Your task to perform on an android device: add a contact in the contacts app Image 0: 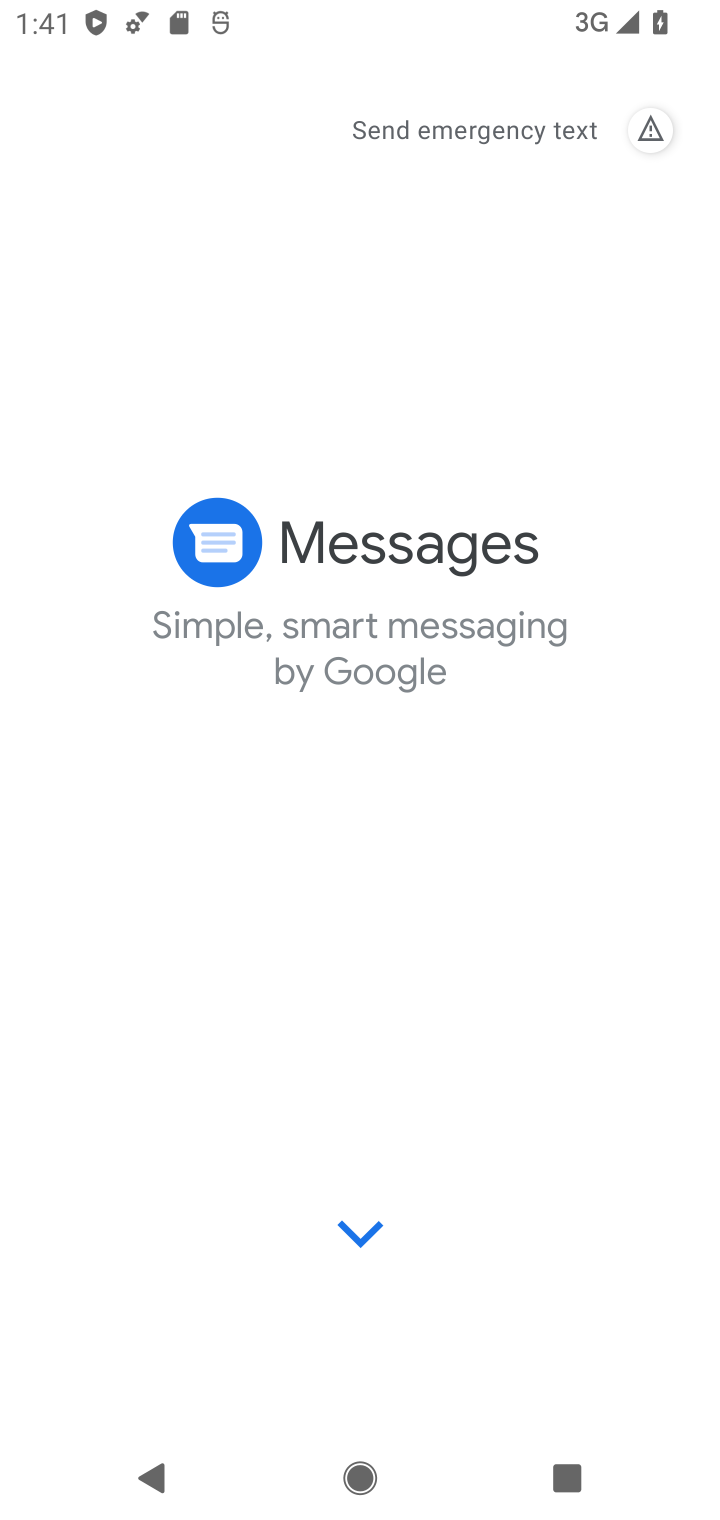
Step 0: press home button
Your task to perform on an android device: add a contact in the contacts app Image 1: 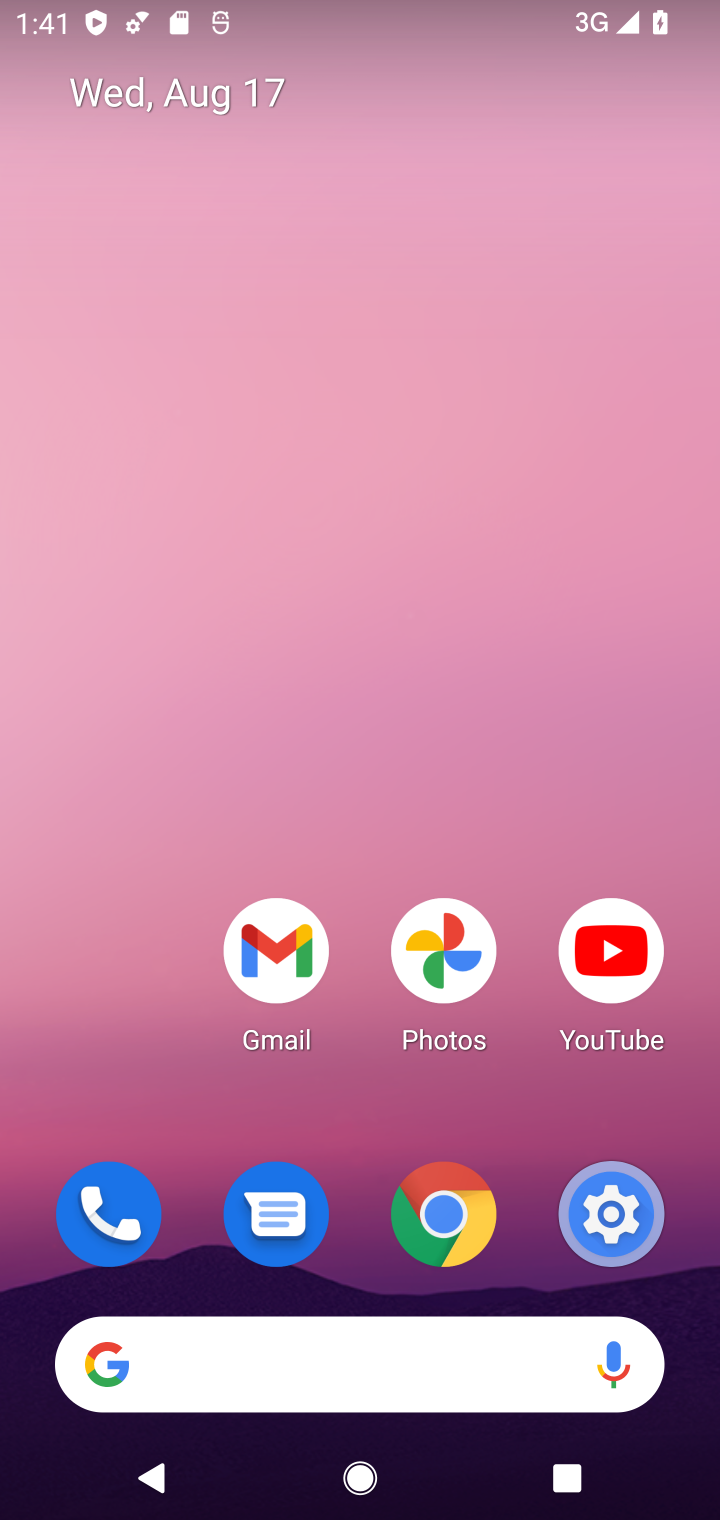
Step 1: drag from (359, 1259) to (289, 215)
Your task to perform on an android device: add a contact in the contacts app Image 2: 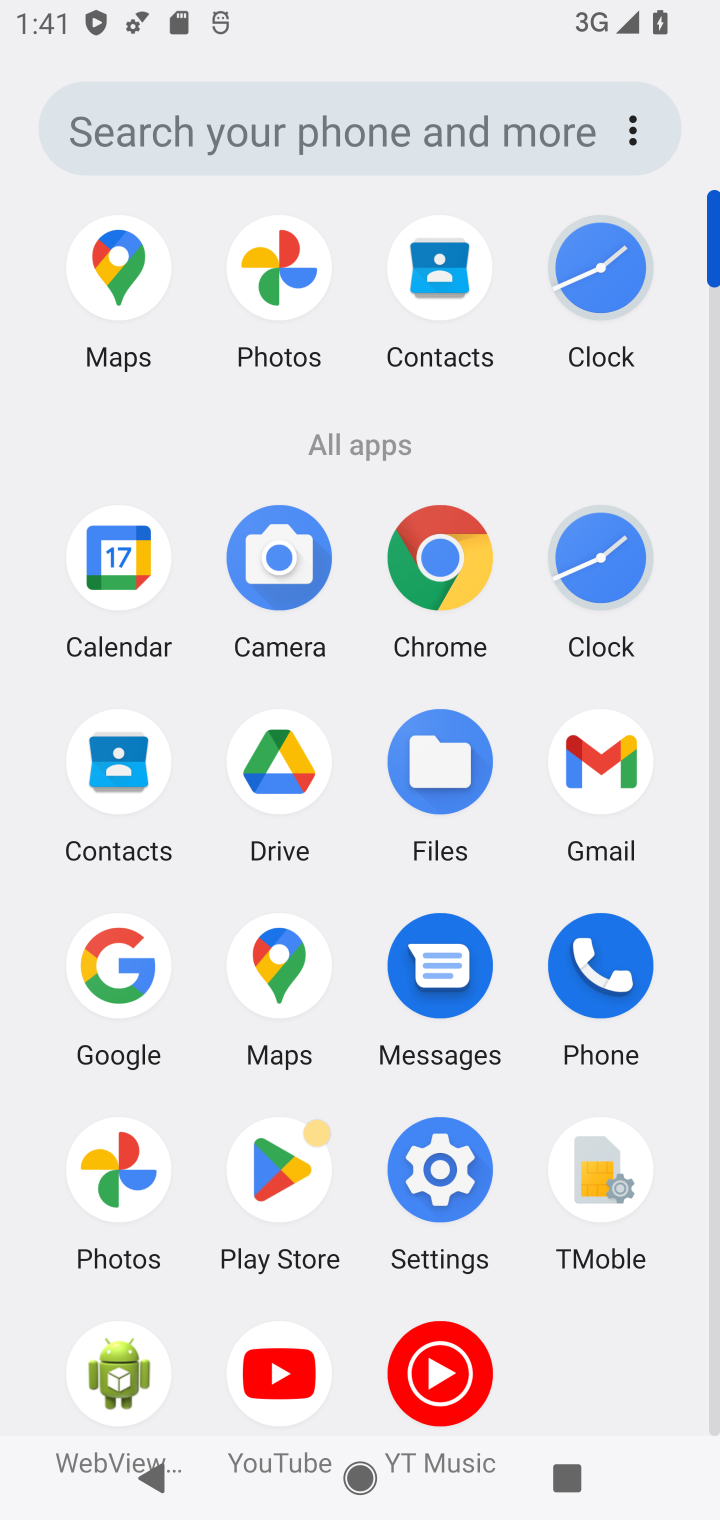
Step 2: click (121, 749)
Your task to perform on an android device: add a contact in the contacts app Image 3: 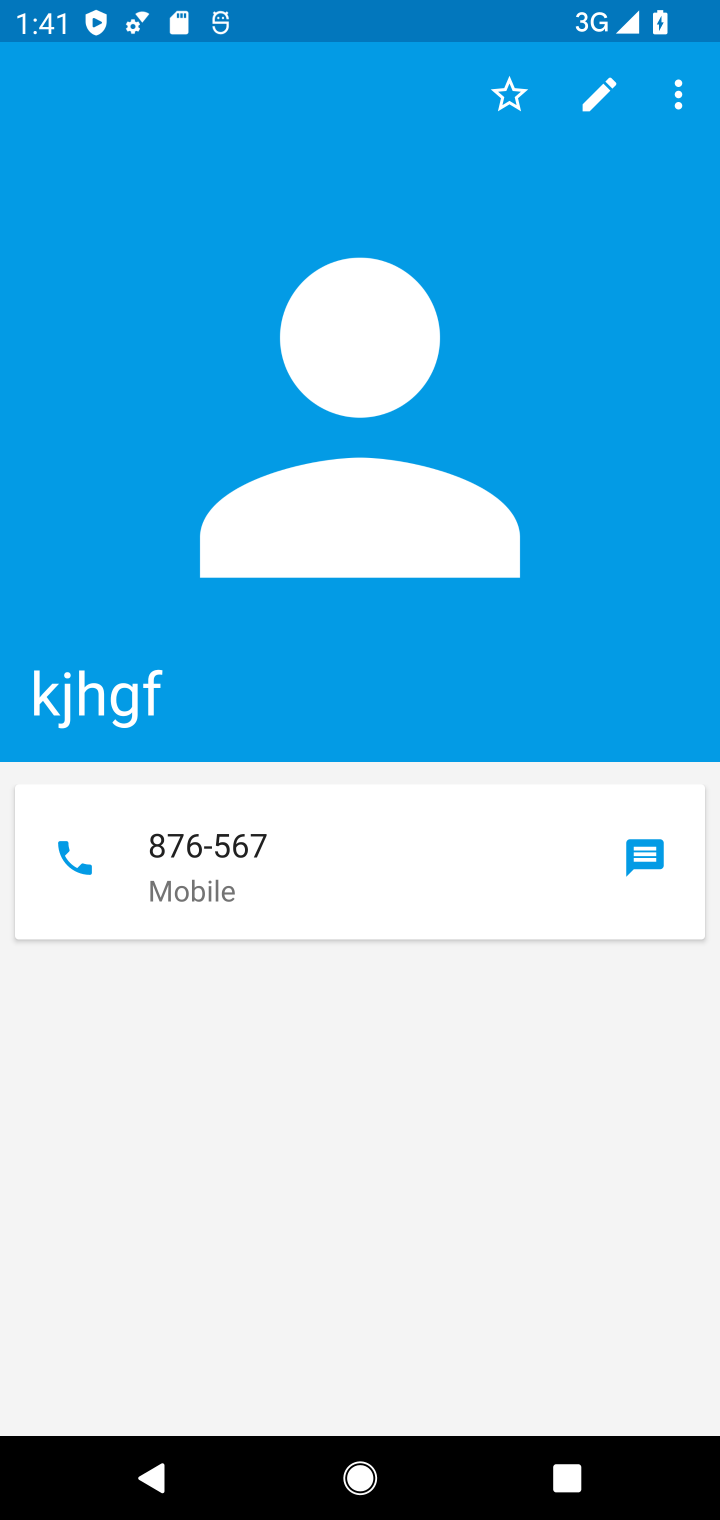
Step 3: press back button
Your task to perform on an android device: add a contact in the contacts app Image 4: 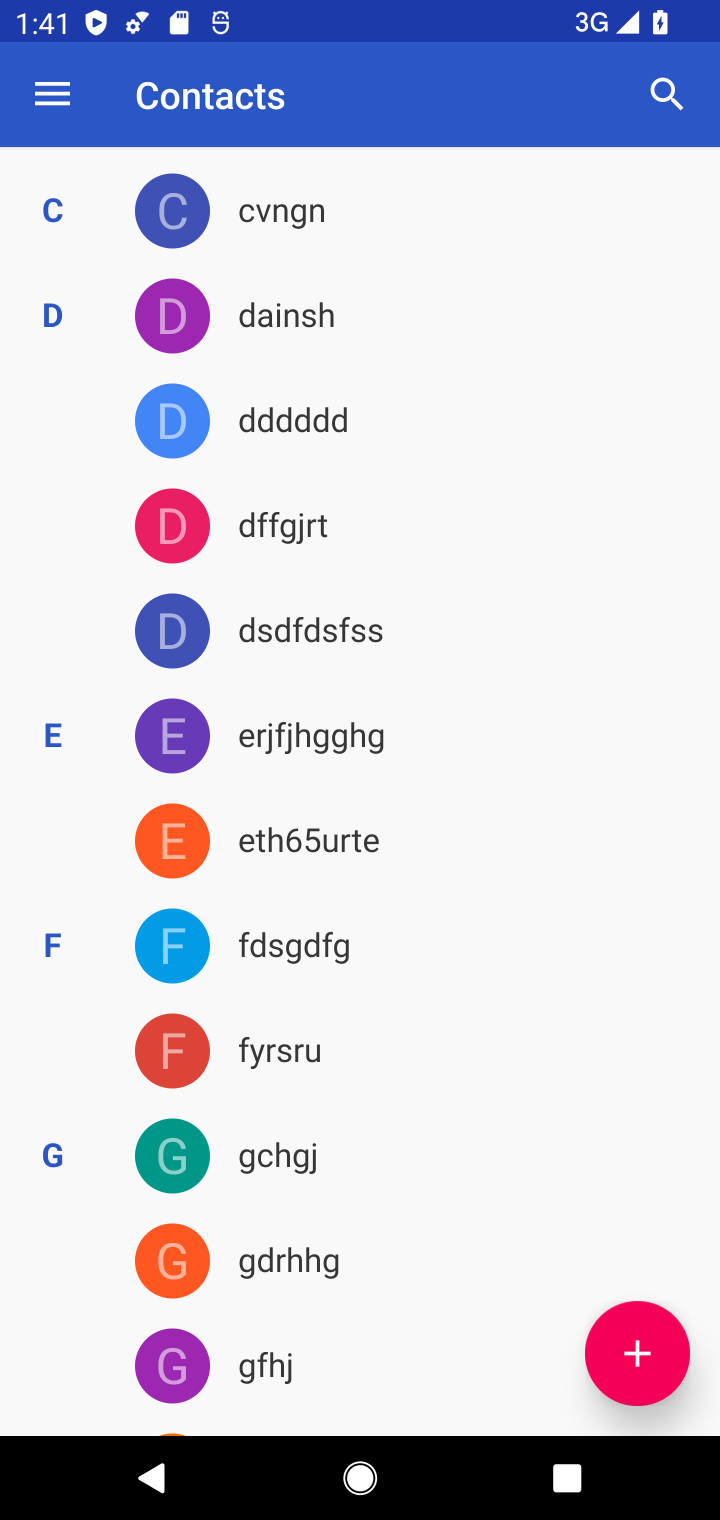
Step 4: click (645, 1357)
Your task to perform on an android device: add a contact in the contacts app Image 5: 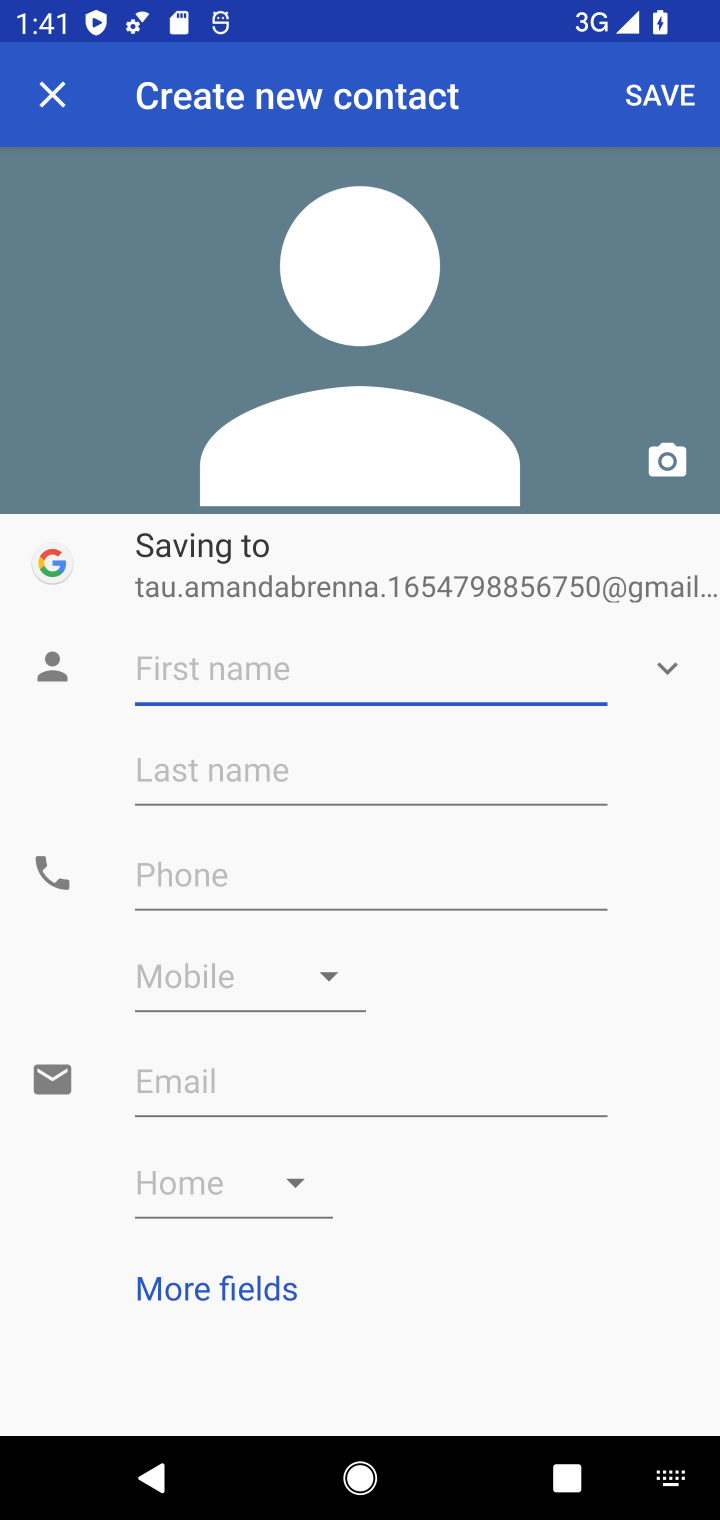
Step 5: type "kjhgf"
Your task to perform on an android device: add a contact in the contacts app Image 6: 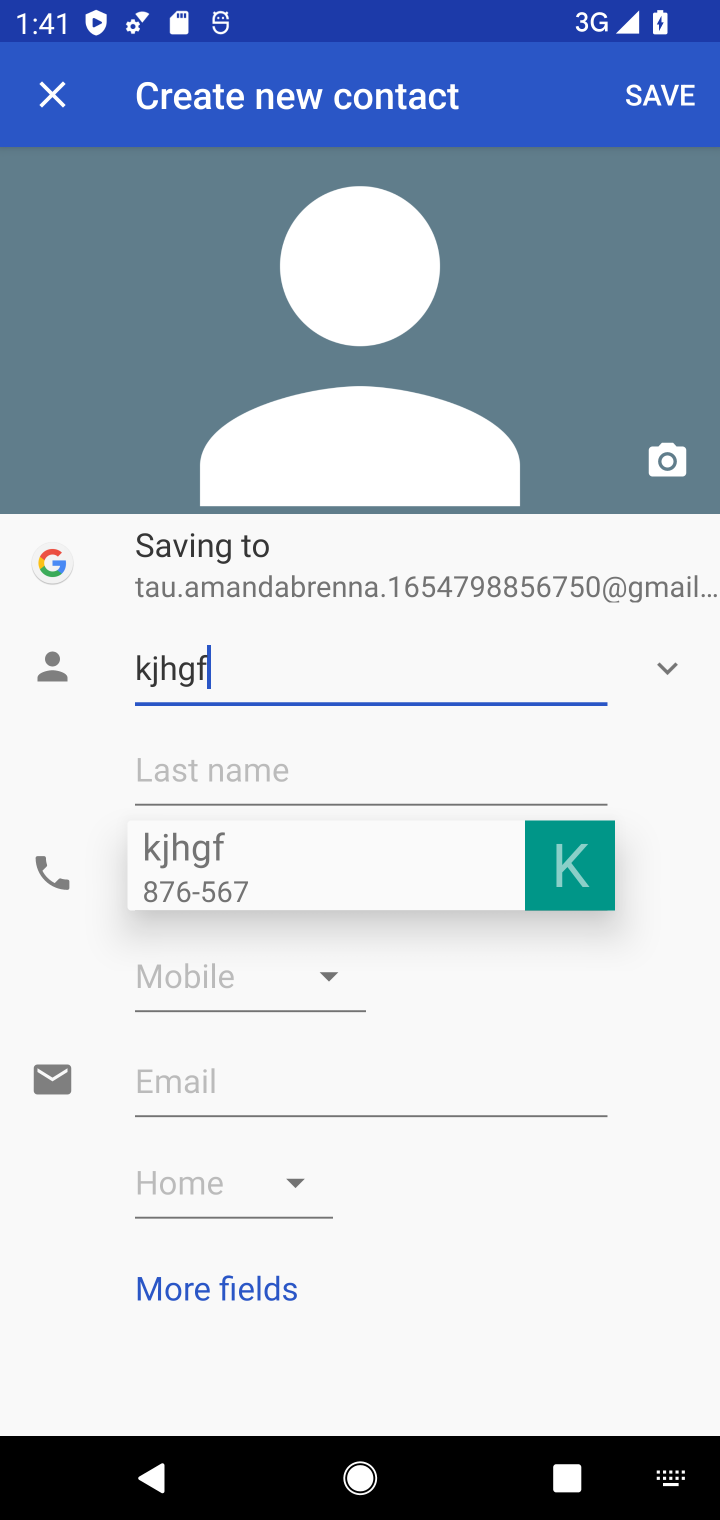
Step 6: click (677, 960)
Your task to perform on an android device: add a contact in the contacts app Image 7: 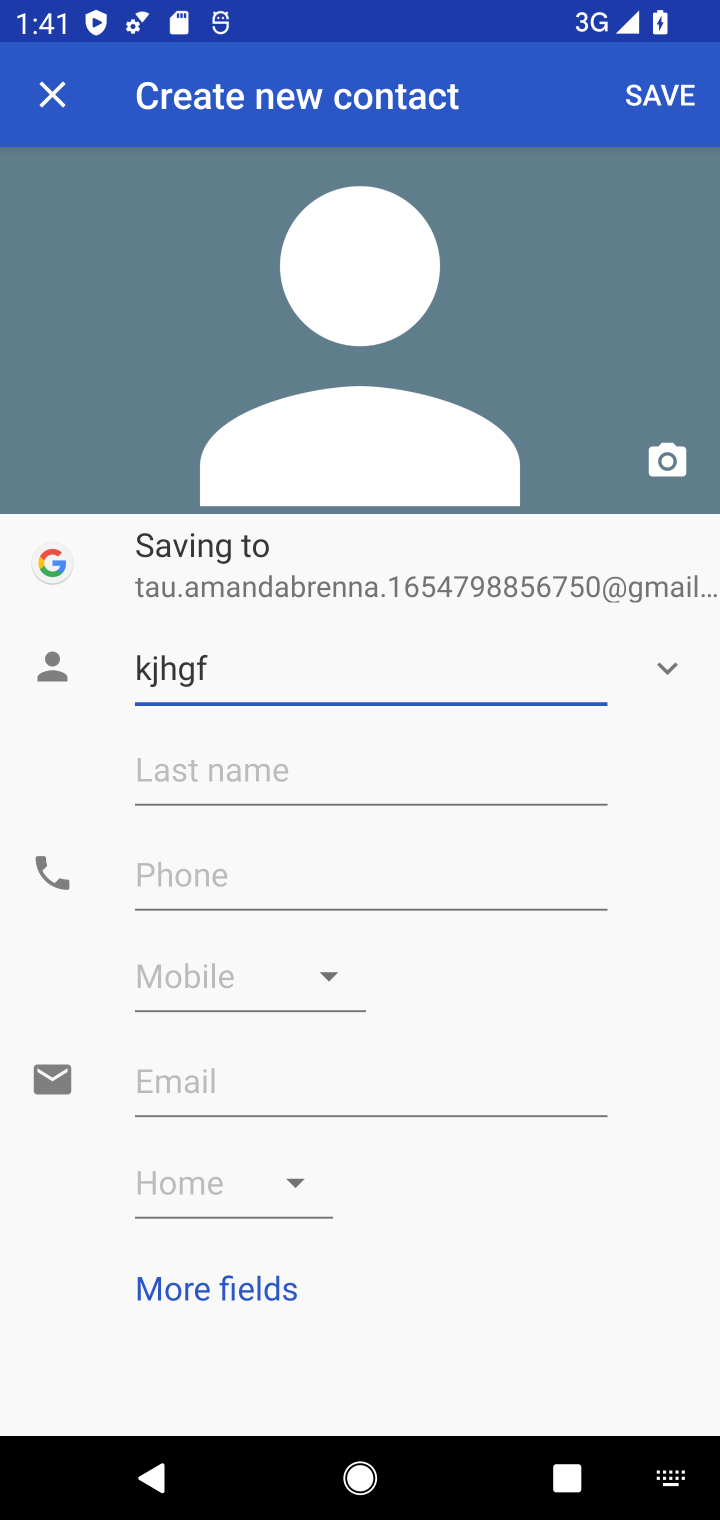
Step 7: click (261, 864)
Your task to perform on an android device: add a contact in the contacts app Image 8: 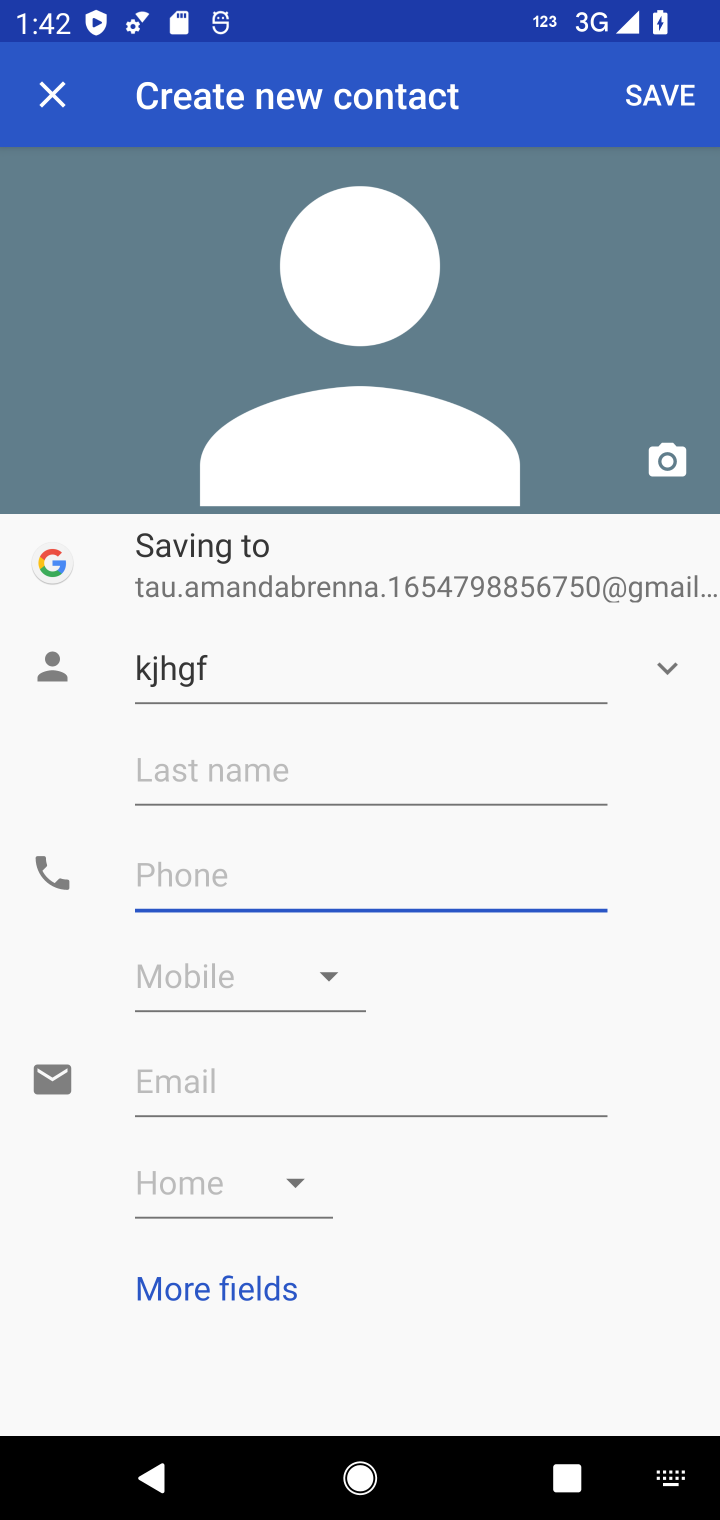
Step 8: type "9898"
Your task to perform on an android device: add a contact in the contacts app Image 9: 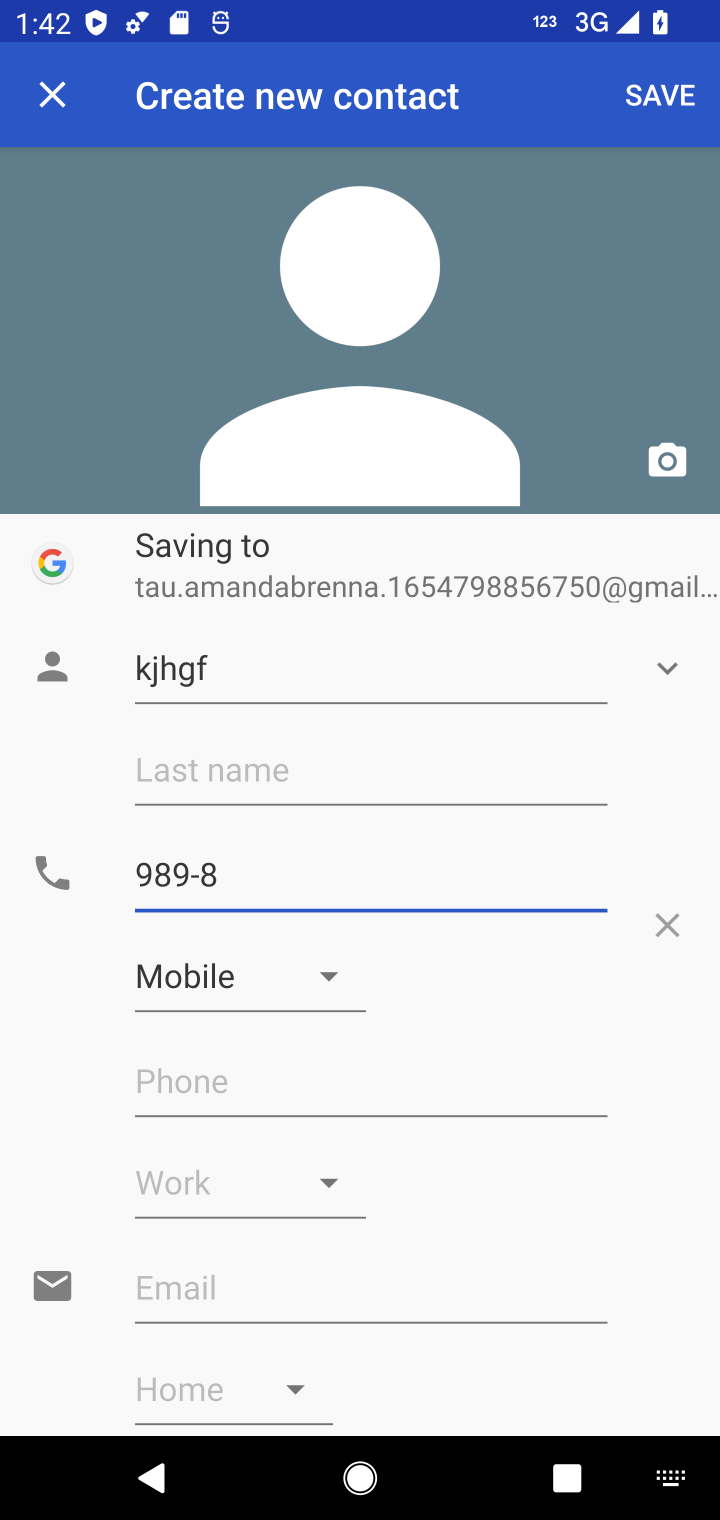
Step 9: click (651, 83)
Your task to perform on an android device: add a contact in the contacts app Image 10: 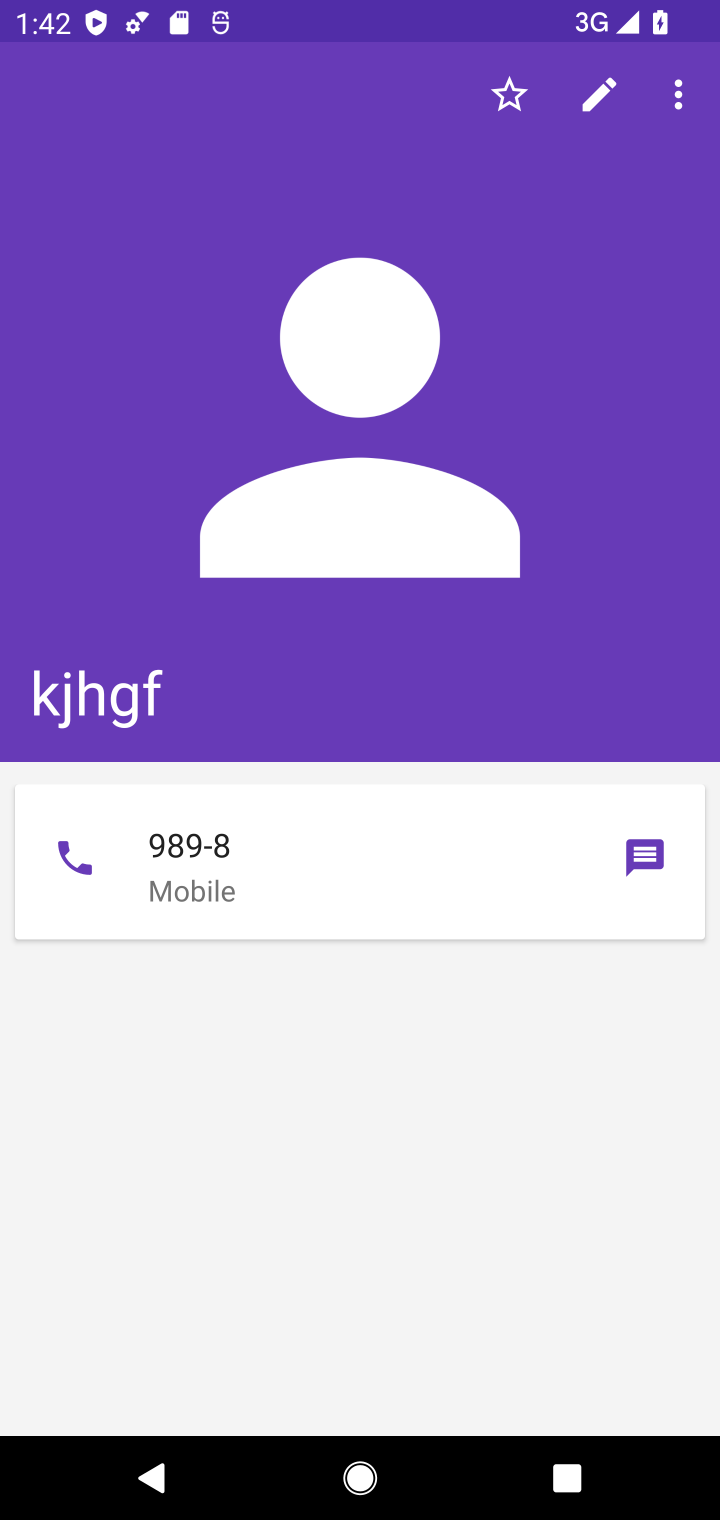
Step 10: task complete